Your task to perform on an android device: Turn on the flashlight Image 0: 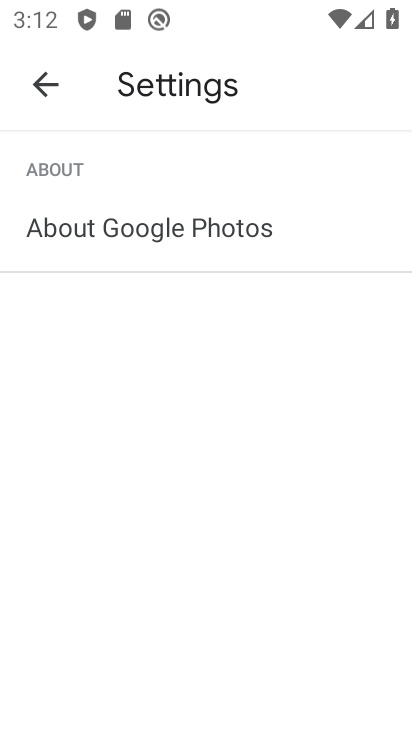
Step 0: press home button
Your task to perform on an android device: Turn on the flashlight Image 1: 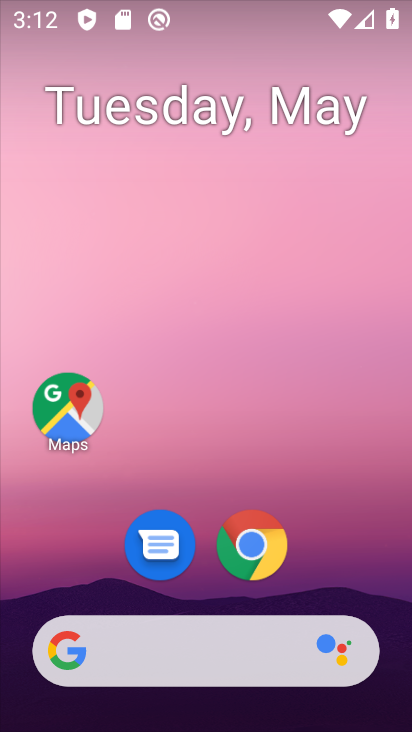
Step 1: drag from (244, 5) to (254, 499)
Your task to perform on an android device: Turn on the flashlight Image 2: 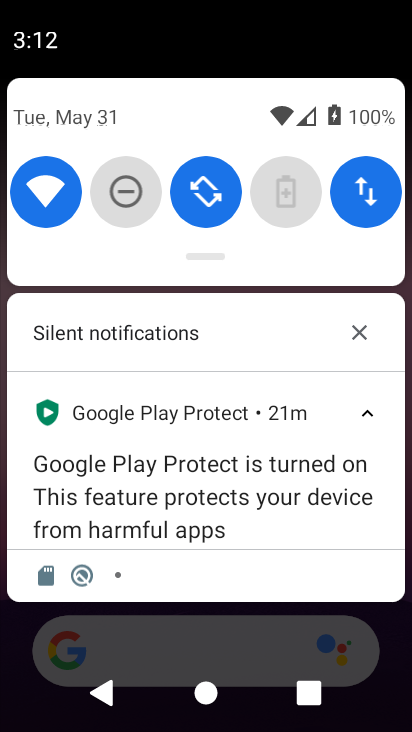
Step 2: drag from (270, 224) to (242, 553)
Your task to perform on an android device: Turn on the flashlight Image 3: 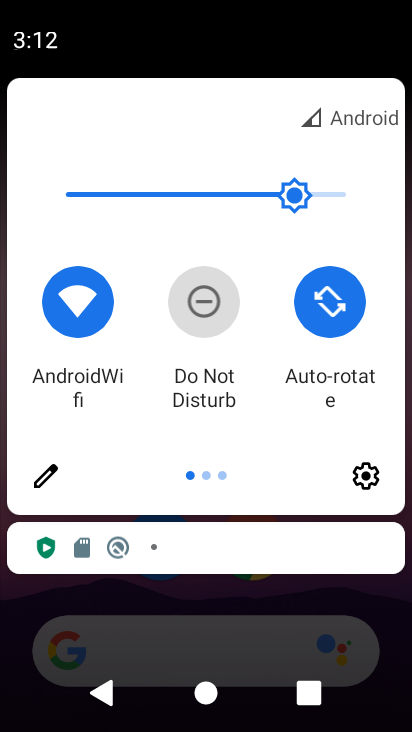
Step 3: drag from (314, 378) to (28, 384)
Your task to perform on an android device: Turn on the flashlight Image 4: 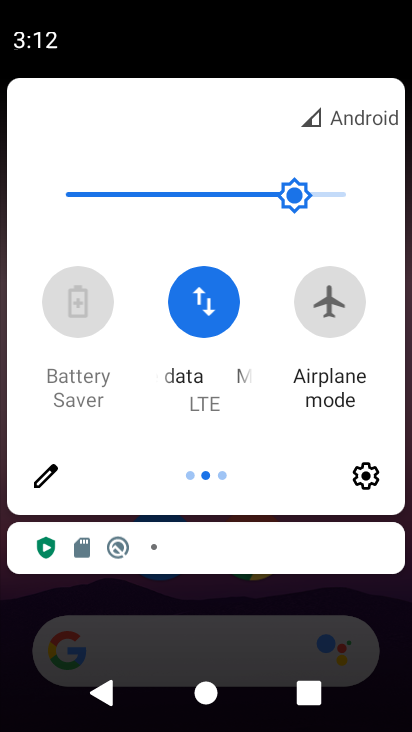
Step 4: drag from (363, 389) to (0, 490)
Your task to perform on an android device: Turn on the flashlight Image 5: 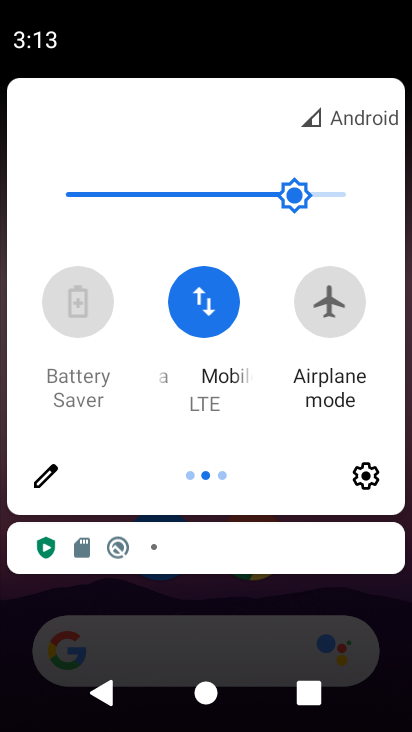
Step 5: drag from (363, 382) to (3, 474)
Your task to perform on an android device: Turn on the flashlight Image 6: 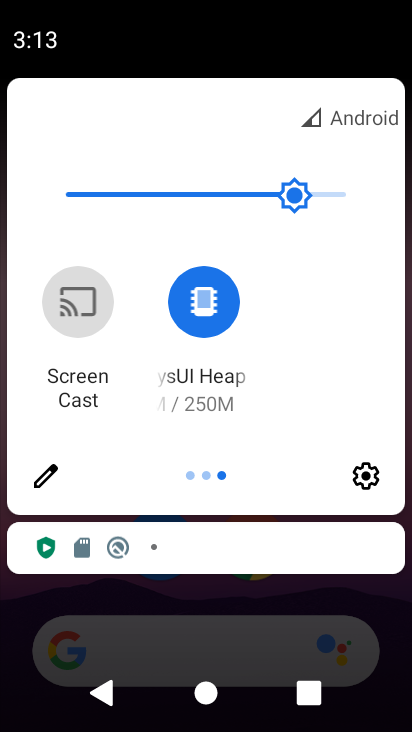
Step 6: click (44, 489)
Your task to perform on an android device: Turn on the flashlight Image 7: 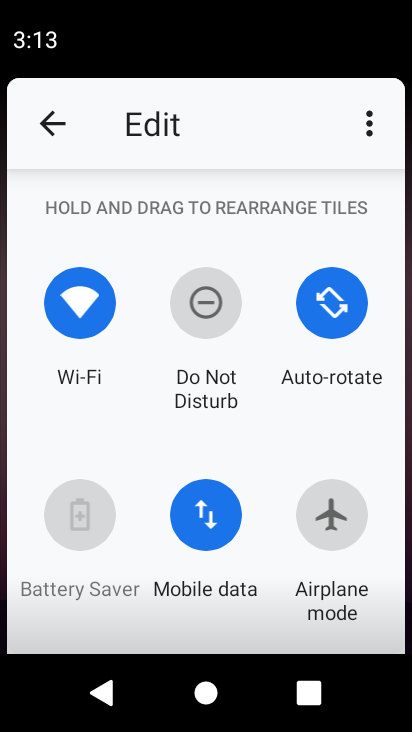
Step 7: task complete